Your task to perform on an android device: Open my contact list Image 0: 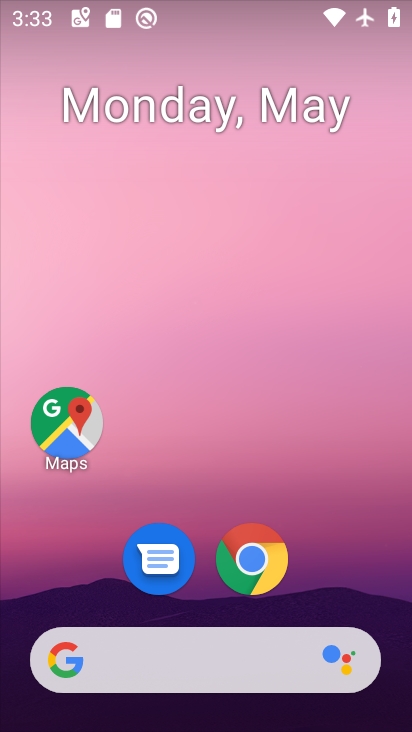
Step 0: drag from (295, 597) to (299, 167)
Your task to perform on an android device: Open my contact list Image 1: 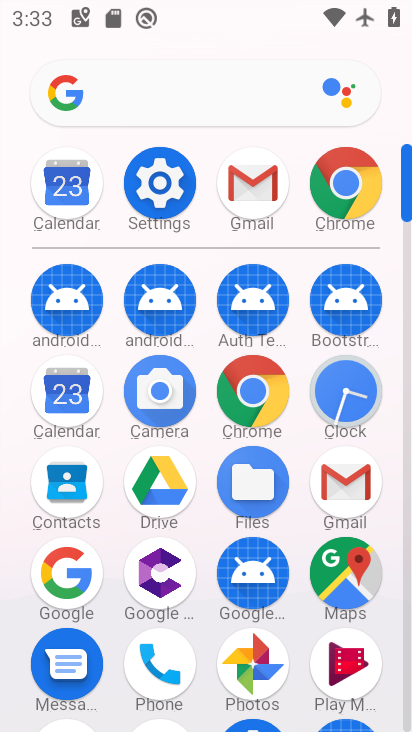
Step 1: click (64, 497)
Your task to perform on an android device: Open my contact list Image 2: 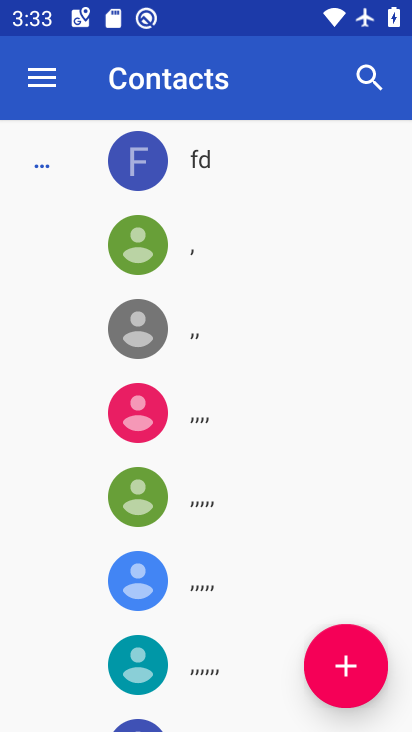
Step 2: task complete